Your task to perform on an android device: Open privacy settings Image 0: 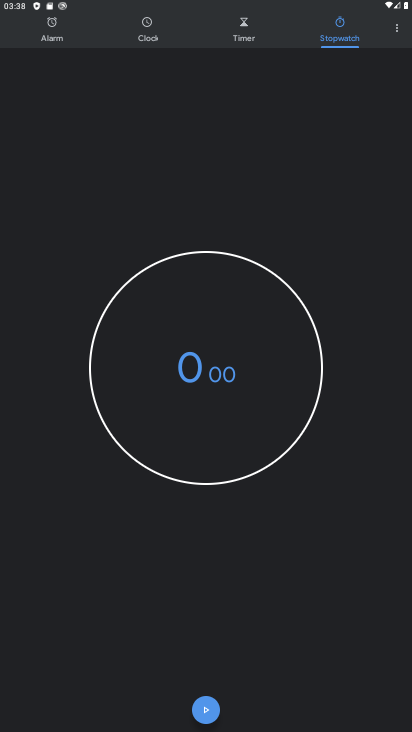
Step 0: press home button
Your task to perform on an android device: Open privacy settings Image 1: 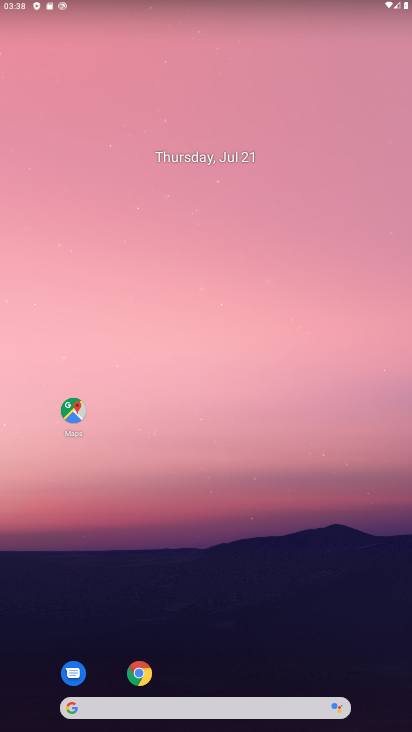
Step 1: drag from (300, 658) to (221, 11)
Your task to perform on an android device: Open privacy settings Image 2: 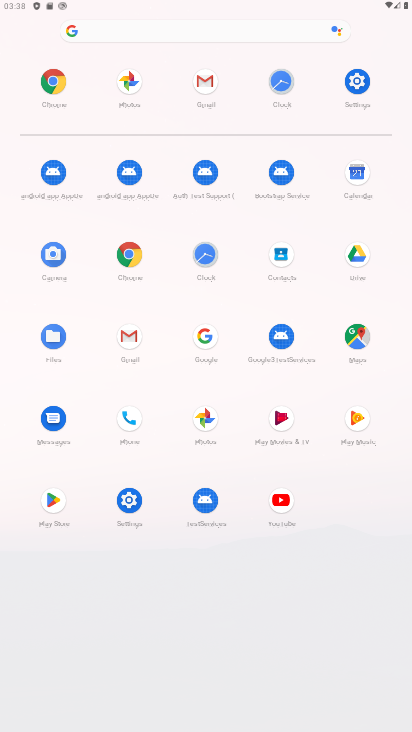
Step 2: click (355, 79)
Your task to perform on an android device: Open privacy settings Image 3: 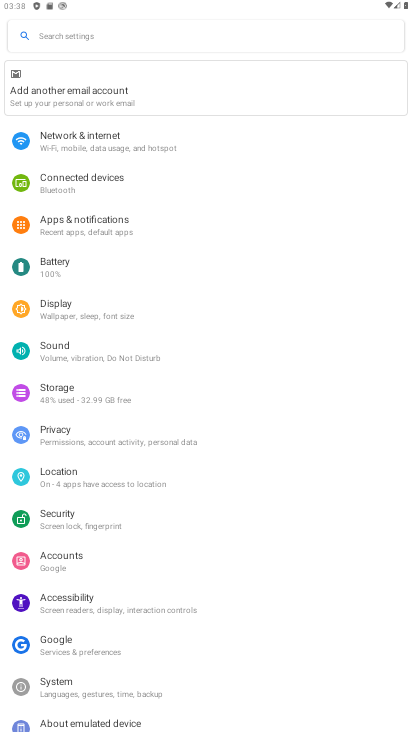
Step 3: click (84, 442)
Your task to perform on an android device: Open privacy settings Image 4: 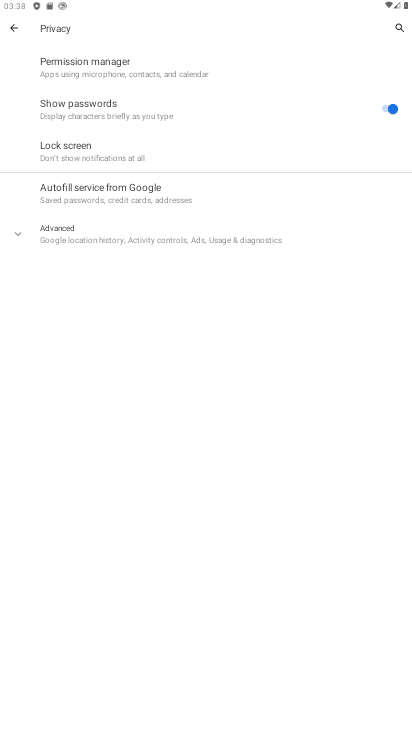
Step 4: task complete